Your task to perform on an android device: toggle notification dots Image 0: 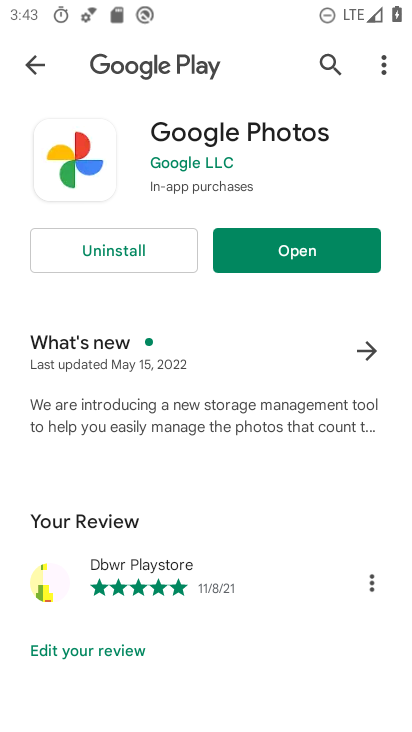
Step 0: press home button
Your task to perform on an android device: toggle notification dots Image 1: 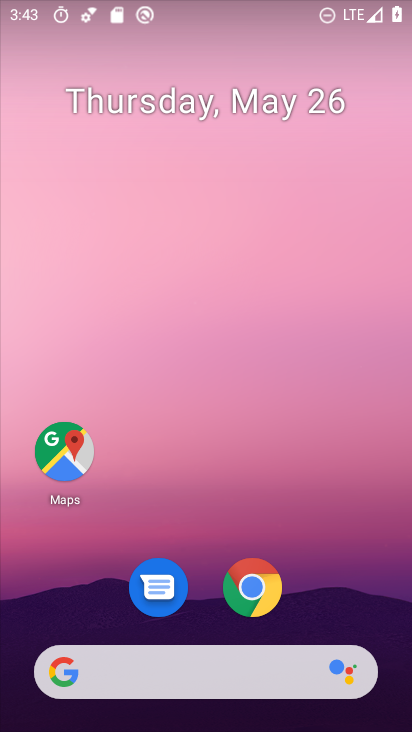
Step 1: drag from (360, 583) to (313, 204)
Your task to perform on an android device: toggle notification dots Image 2: 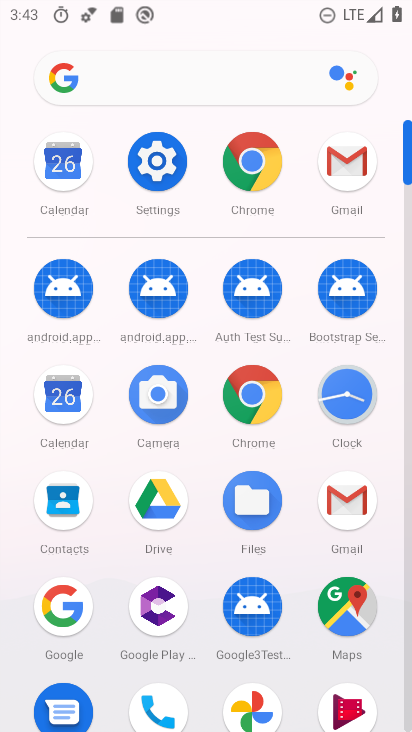
Step 2: click (165, 168)
Your task to perform on an android device: toggle notification dots Image 3: 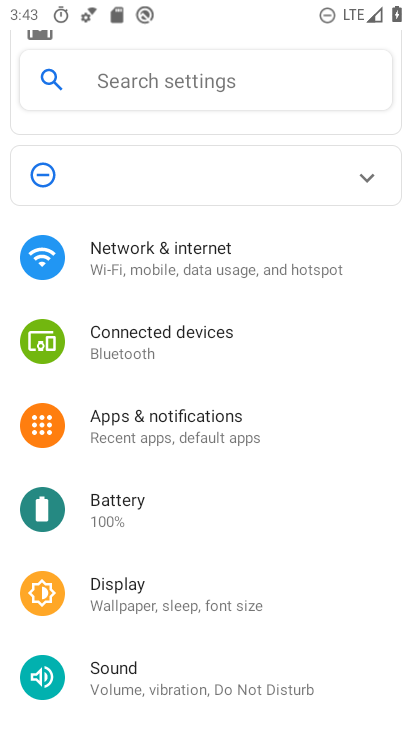
Step 3: click (221, 428)
Your task to perform on an android device: toggle notification dots Image 4: 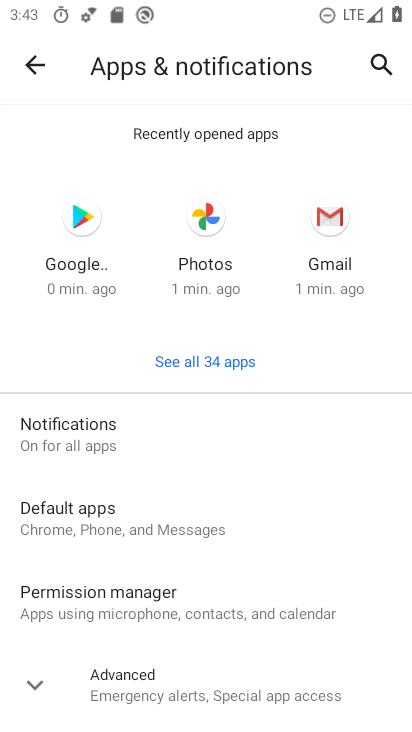
Step 4: click (212, 427)
Your task to perform on an android device: toggle notification dots Image 5: 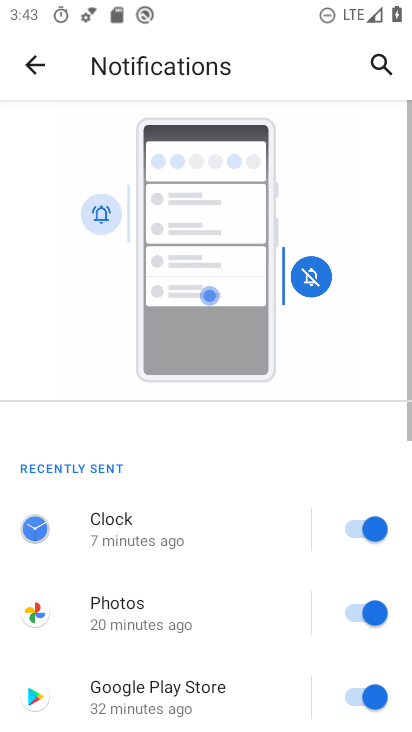
Step 5: drag from (256, 518) to (274, 99)
Your task to perform on an android device: toggle notification dots Image 6: 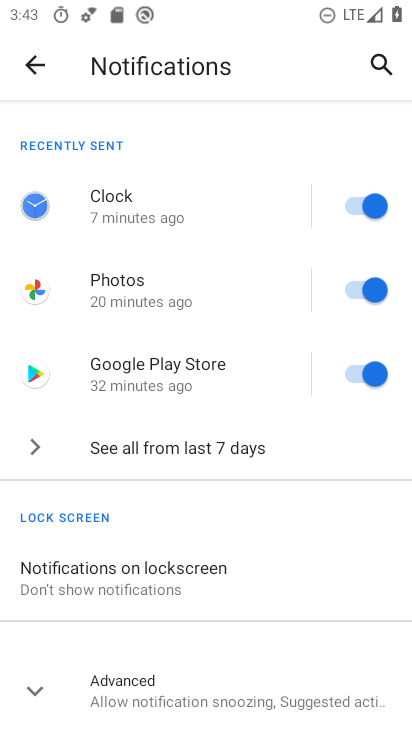
Step 6: click (181, 706)
Your task to perform on an android device: toggle notification dots Image 7: 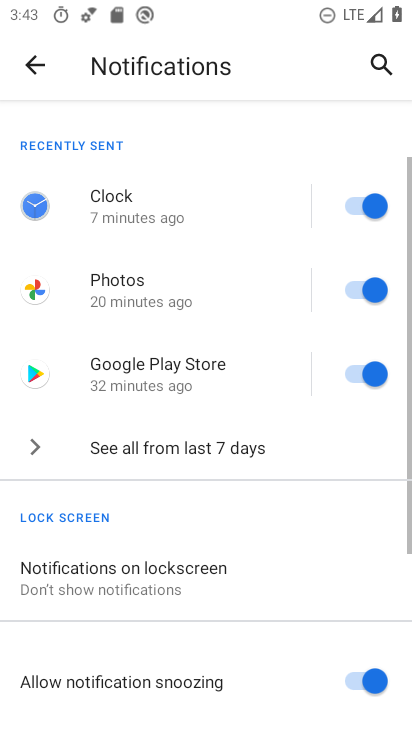
Step 7: drag from (193, 672) to (254, 182)
Your task to perform on an android device: toggle notification dots Image 8: 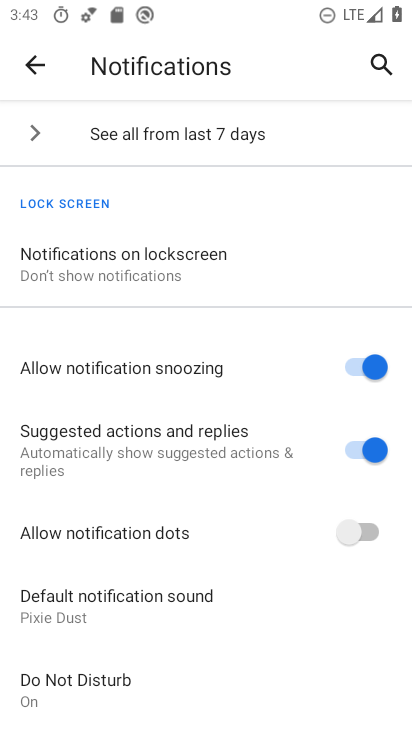
Step 8: click (365, 530)
Your task to perform on an android device: toggle notification dots Image 9: 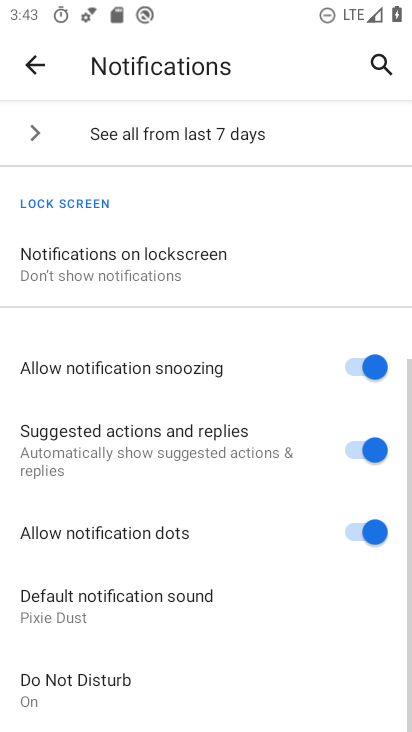
Step 9: task complete